Your task to perform on an android device: Search for flights from NYC to San Francisco Image 0: 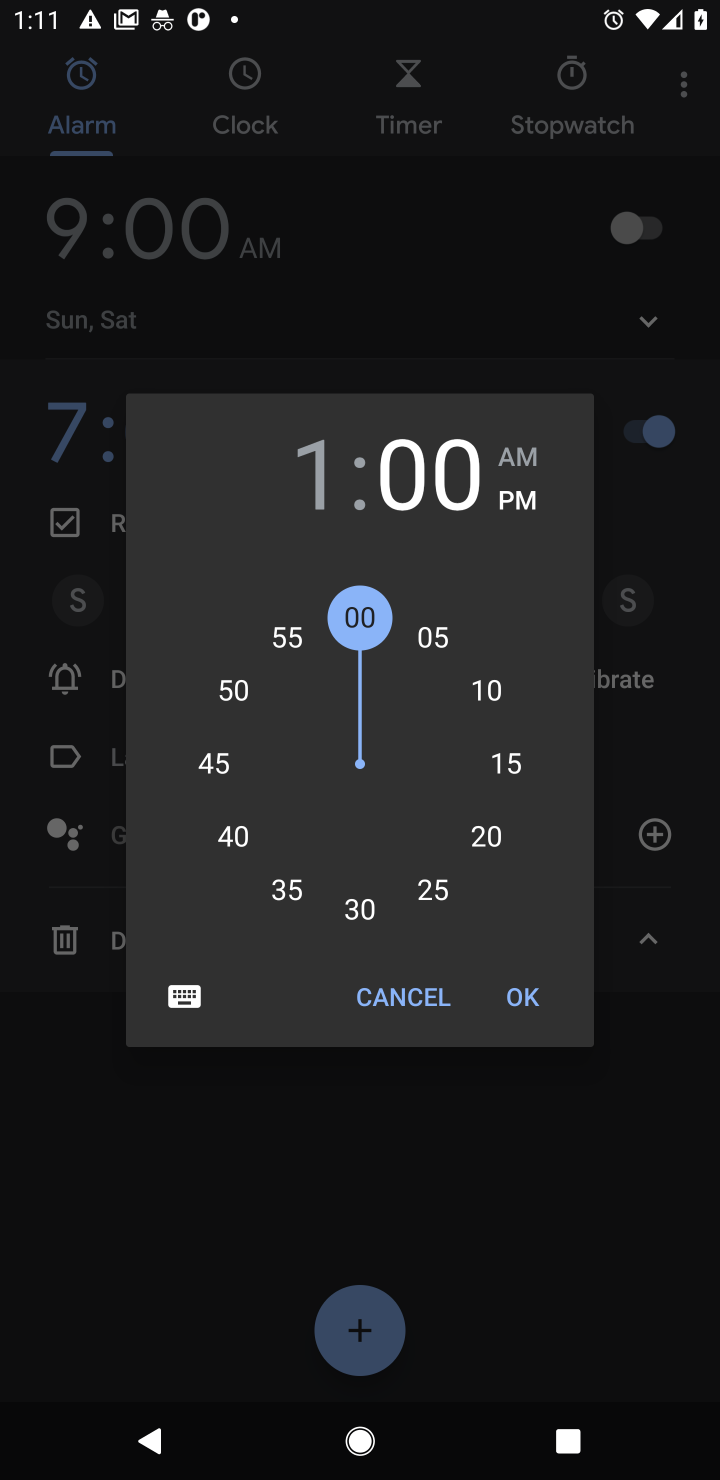
Step 0: press home button
Your task to perform on an android device: Search for flights from NYC to San Francisco Image 1: 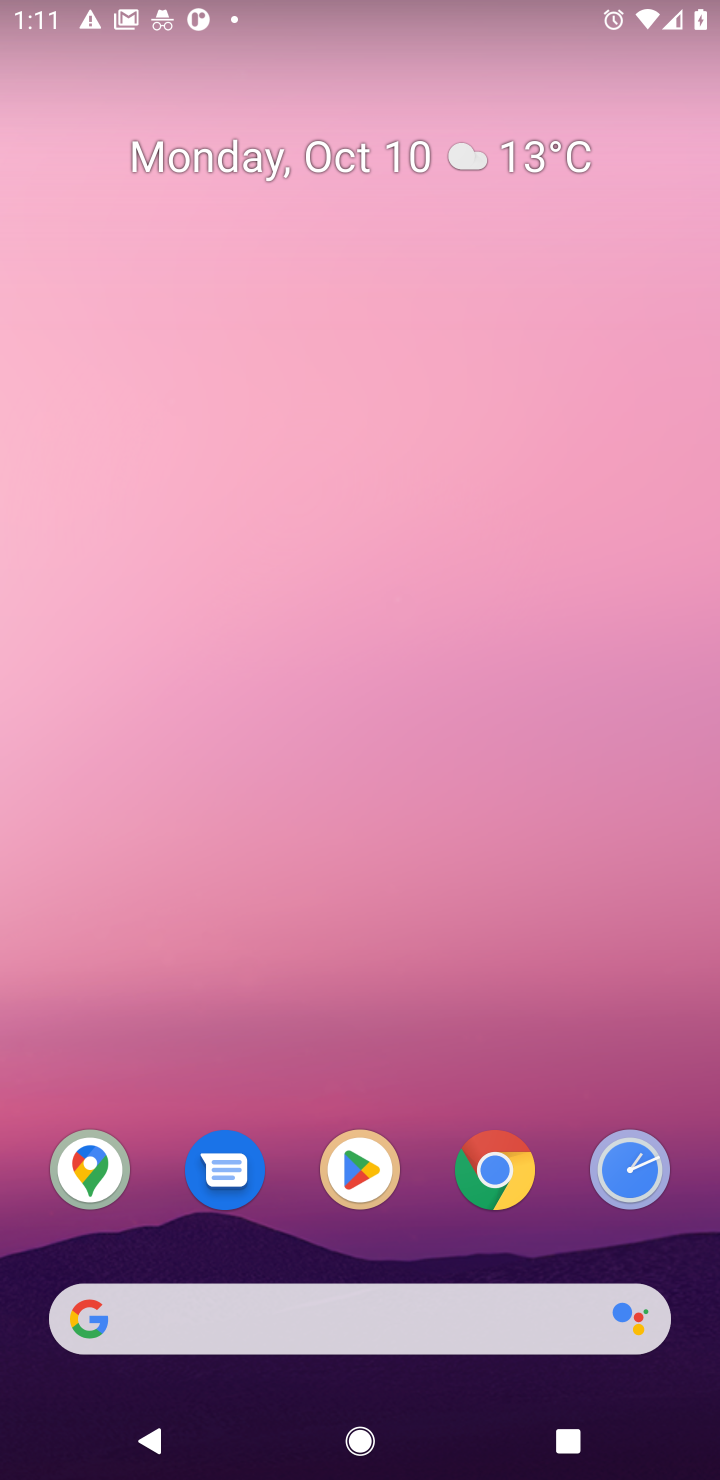
Step 1: click (492, 1179)
Your task to perform on an android device: Search for flights from NYC to San Francisco Image 2: 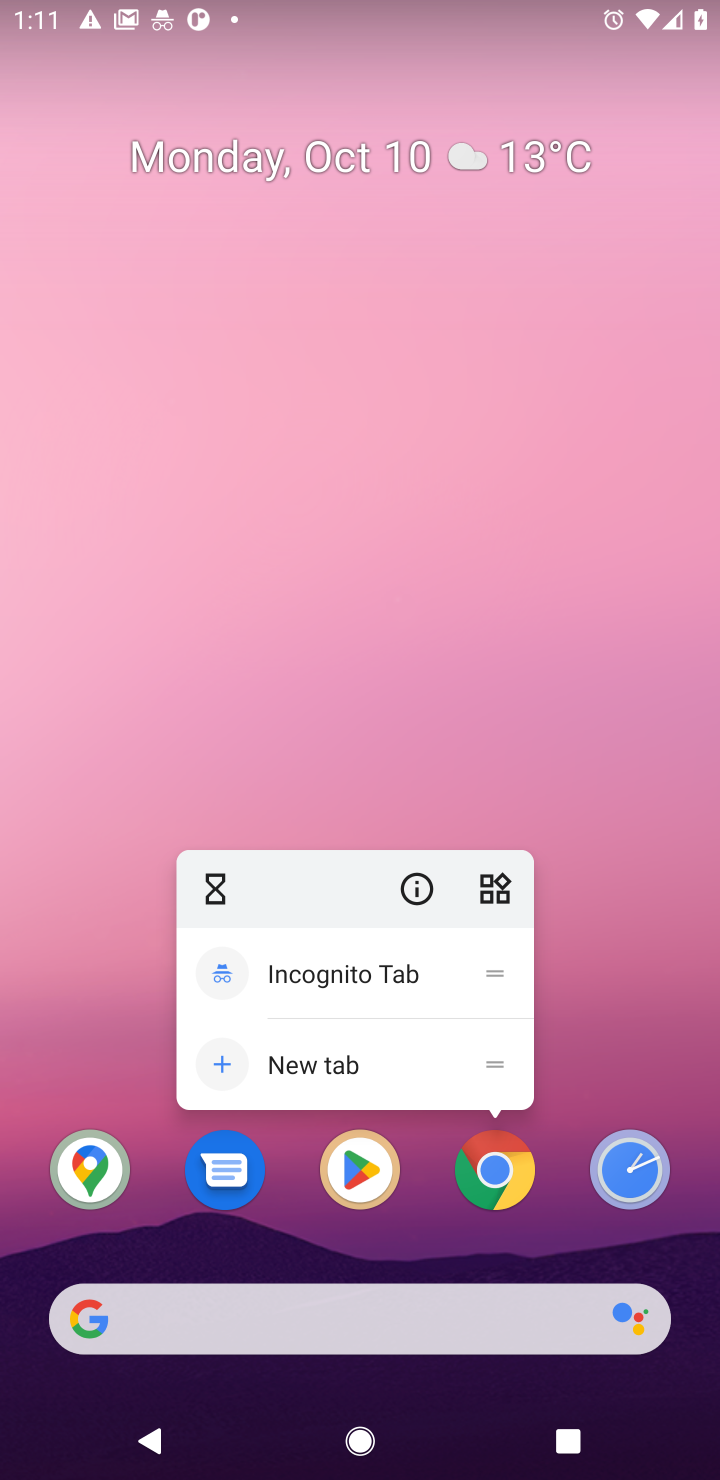
Step 2: click (492, 1179)
Your task to perform on an android device: Search for flights from NYC to San Francisco Image 3: 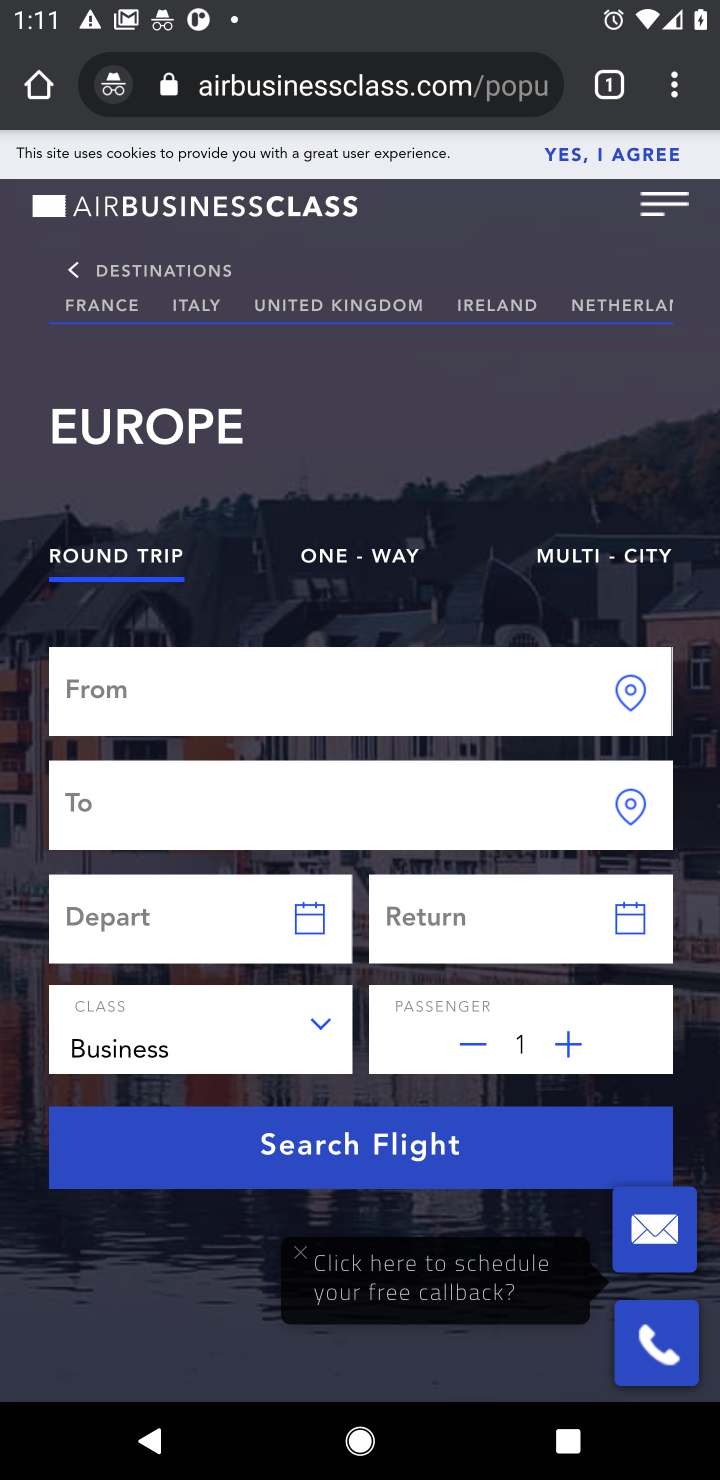
Step 3: click (407, 81)
Your task to perform on an android device: Search for flights from NYC to San Francisco Image 4: 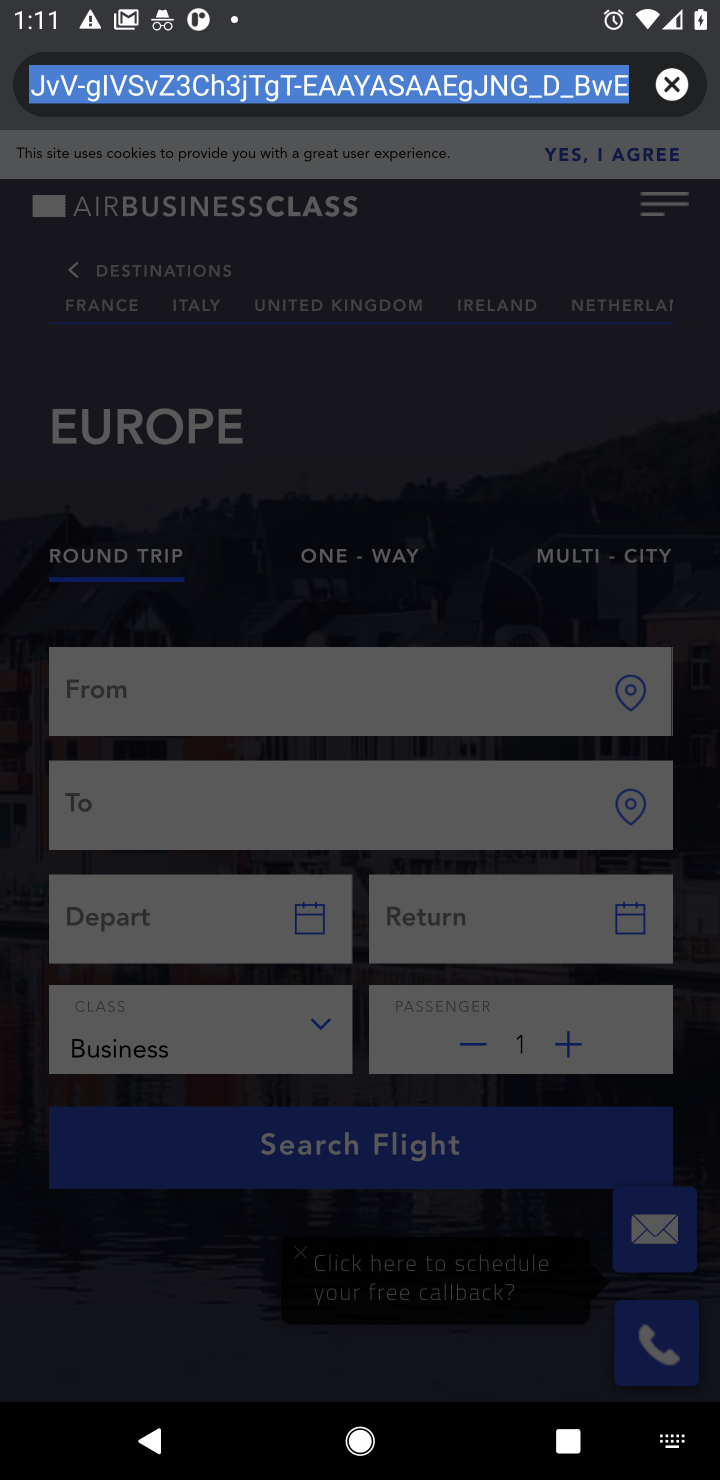
Step 4: click (670, 87)
Your task to perform on an android device: Search for flights from NYC to San Francisco Image 5: 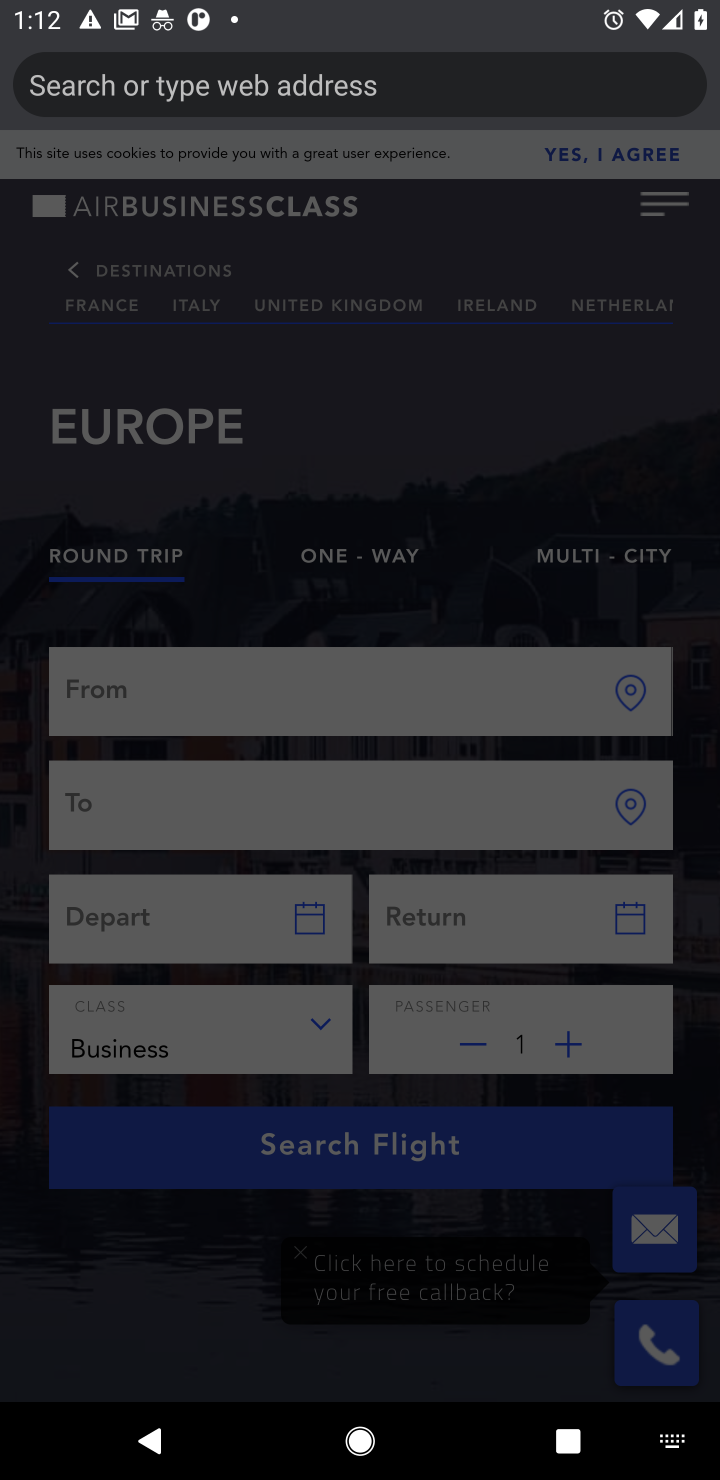
Step 5: type "flights from nyc to san francisco"
Your task to perform on an android device: Search for flights from NYC to San Francisco Image 6: 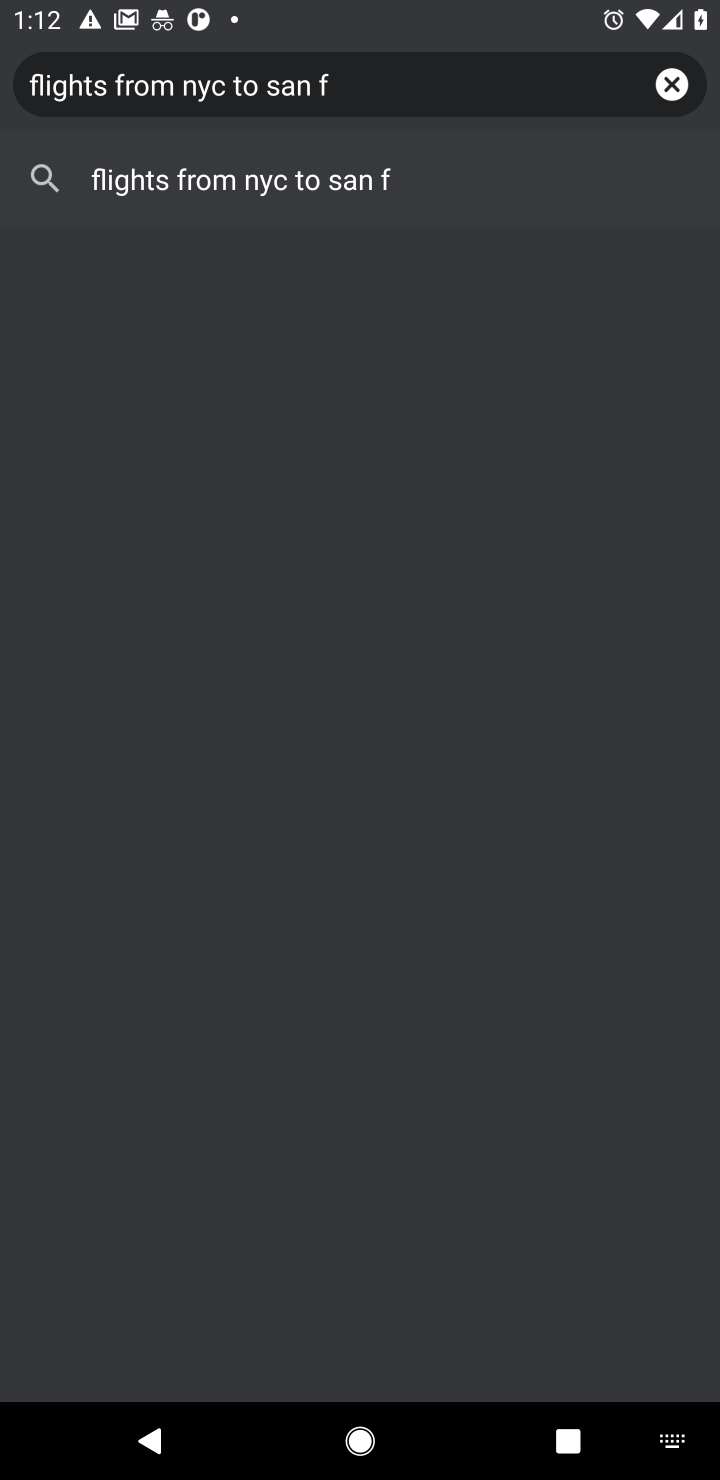
Step 6: click (297, 169)
Your task to perform on an android device: Search for flights from NYC to San Francisco Image 7: 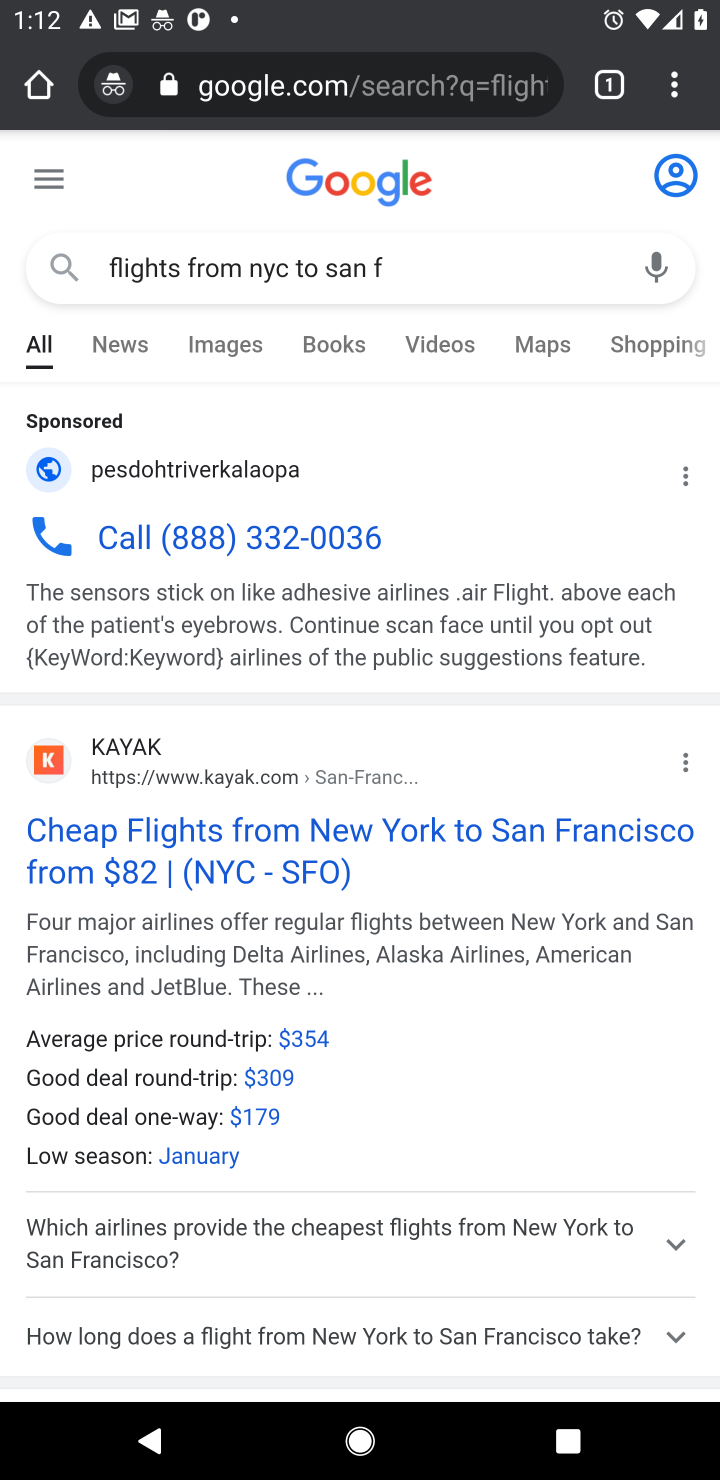
Step 7: click (269, 832)
Your task to perform on an android device: Search for flights from NYC to San Francisco Image 8: 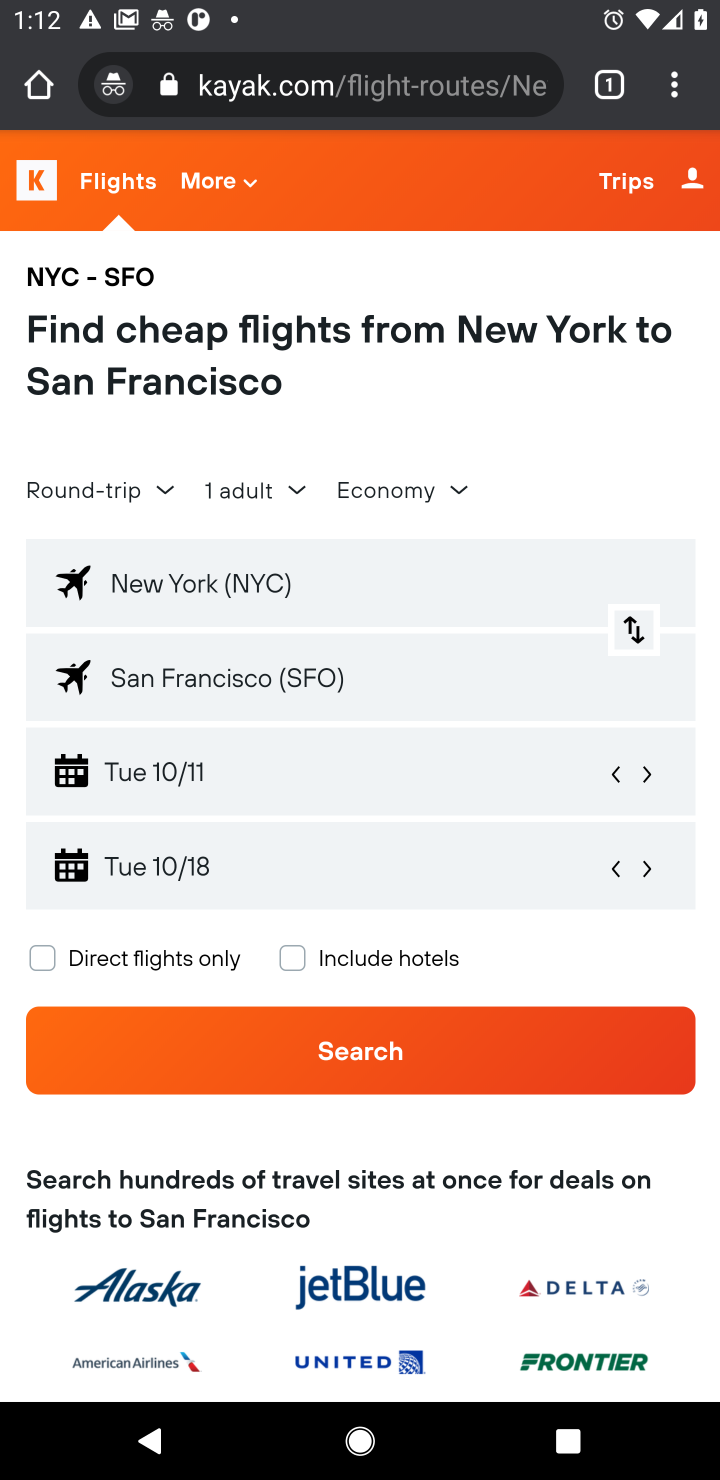
Step 8: task complete